Your task to perform on an android device: Go to CNN.com Image 0: 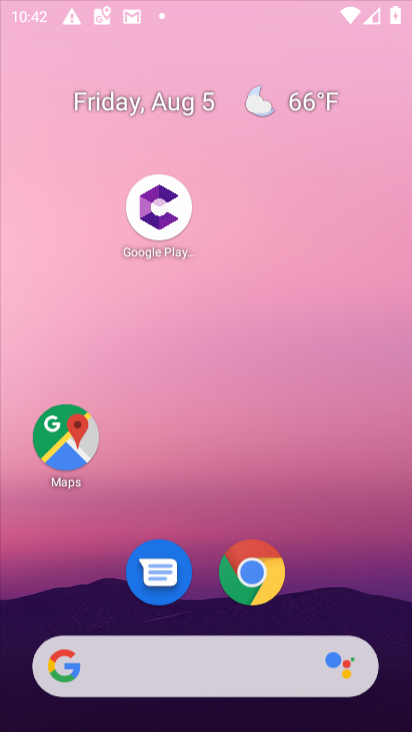
Step 0: press home button
Your task to perform on an android device: Go to CNN.com Image 1: 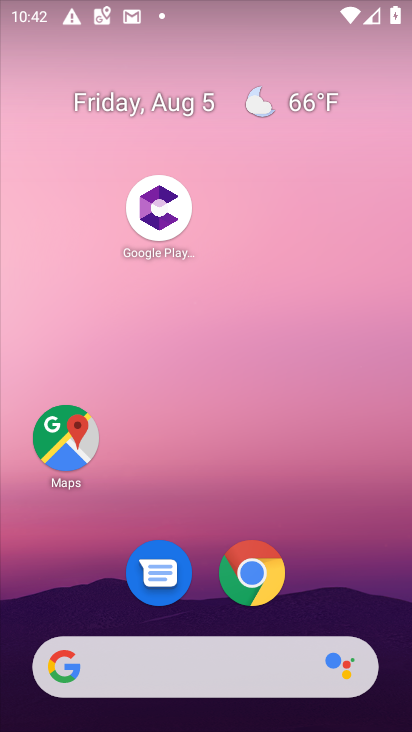
Step 1: click (247, 567)
Your task to perform on an android device: Go to CNN.com Image 2: 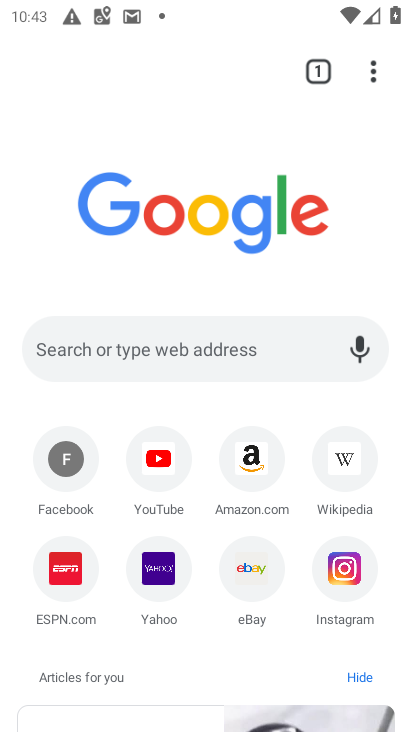
Step 2: click (128, 352)
Your task to perform on an android device: Go to CNN.com Image 3: 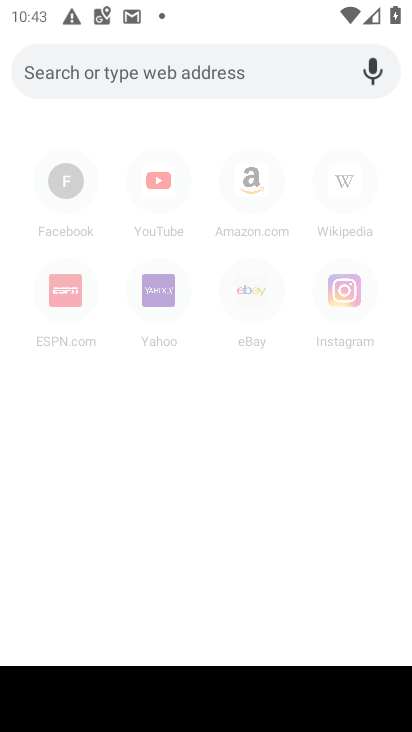
Step 3: type "cnn.com"
Your task to perform on an android device: Go to CNN.com Image 4: 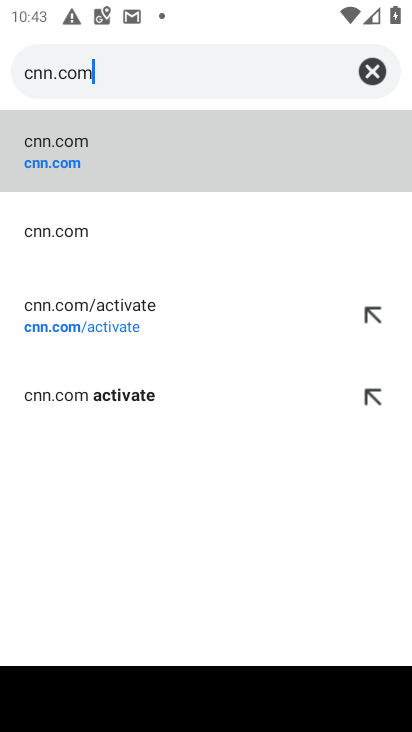
Step 4: click (85, 158)
Your task to perform on an android device: Go to CNN.com Image 5: 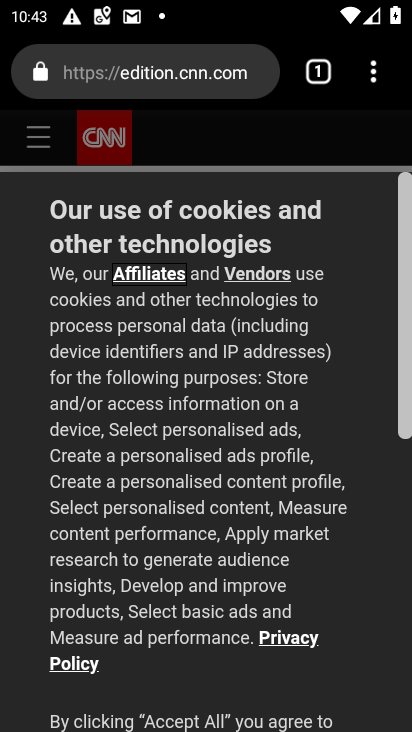
Step 5: drag from (182, 662) to (200, 236)
Your task to perform on an android device: Go to CNN.com Image 6: 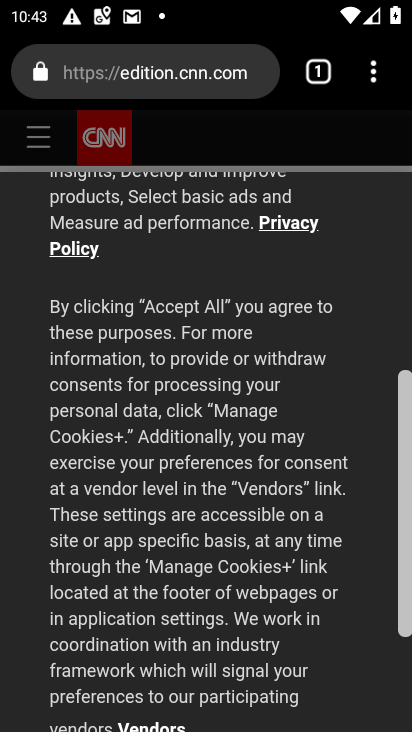
Step 6: drag from (211, 634) to (223, 240)
Your task to perform on an android device: Go to CNN.com Image 7: 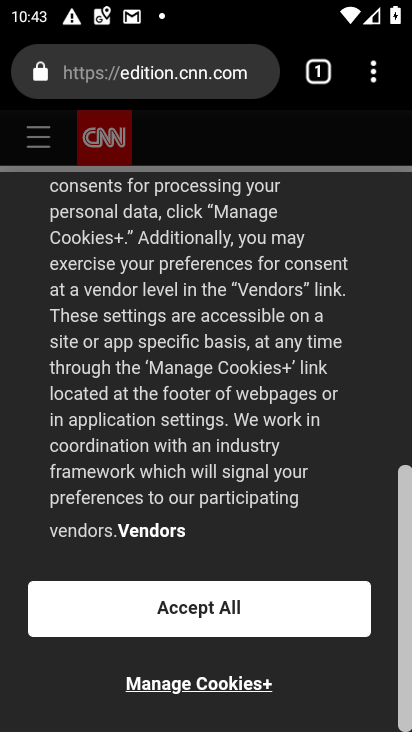
Step 7: click (214, 604)
Your task to perform on an android device: Go to CNN.com Image 8: 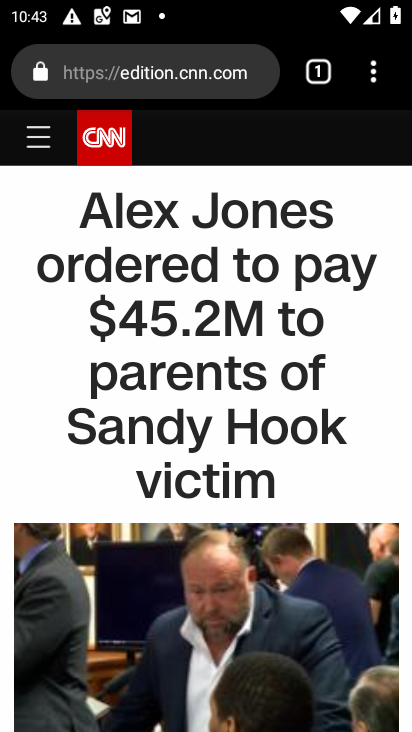
Step 8: task complete